Your task to perform on an android device: Nike Air Max 2020 shoes on Nike.com Image 0: 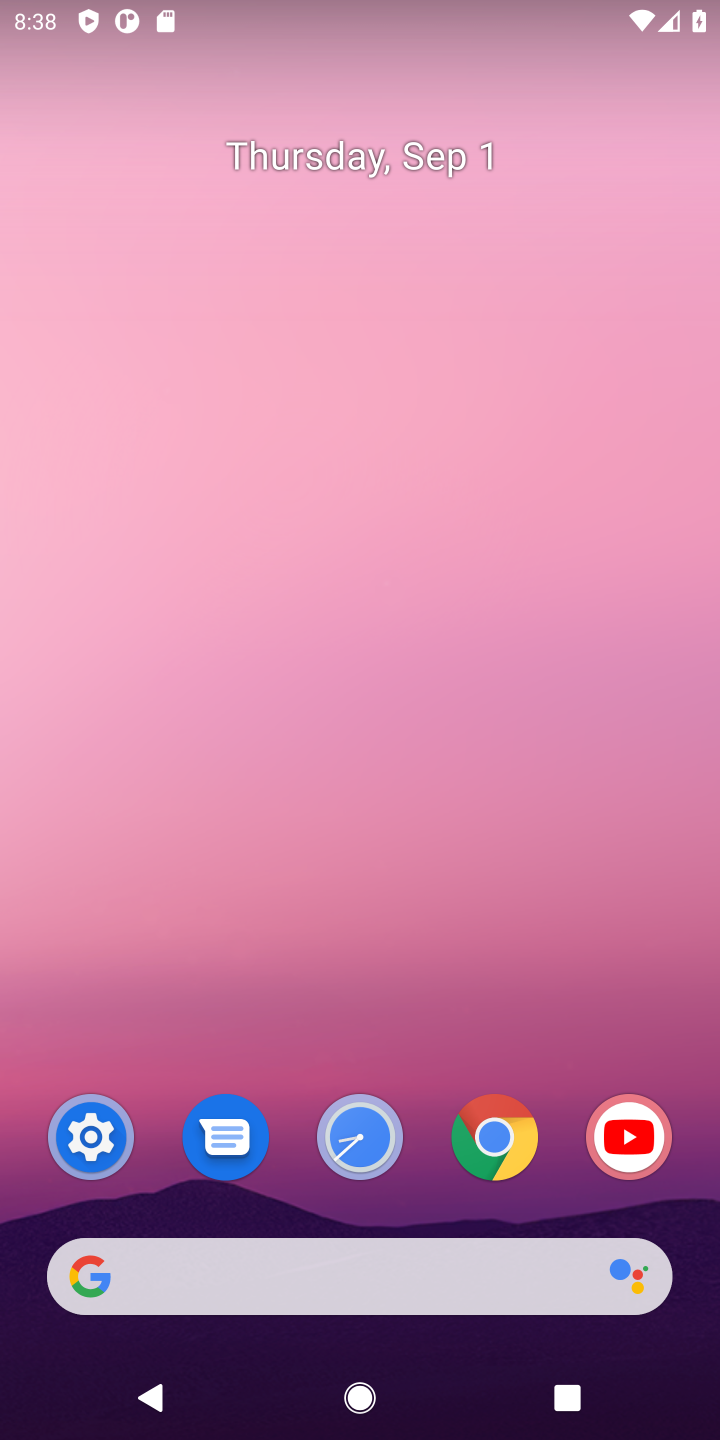
Step 0: drag from (395, 979) to (571, 8)
Your task to perform on an android device: Nike Air Max 2020 shoes on Nike.com Image 1: 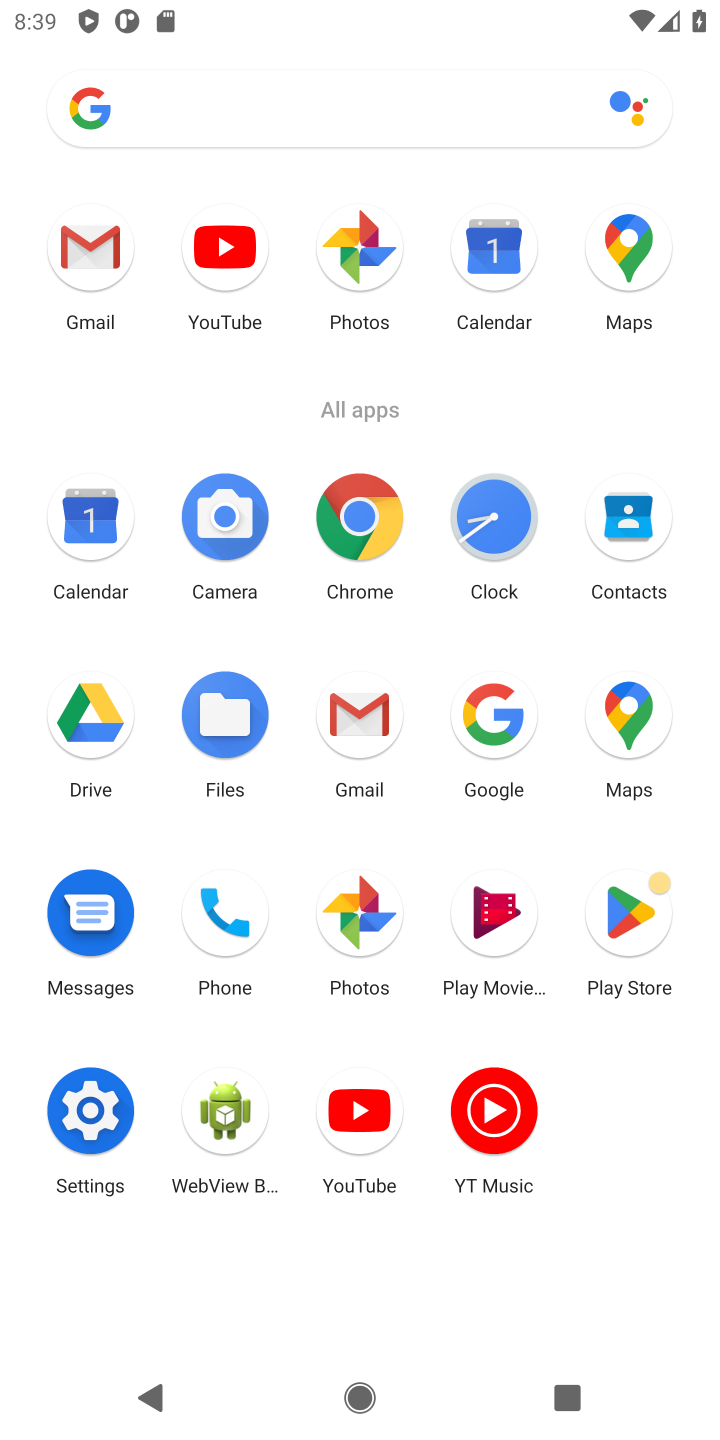
Step 1: click (354, 510)
Your task to perform on an android device: Nike Air Max 2020 shoes on Nike.com Image 2: 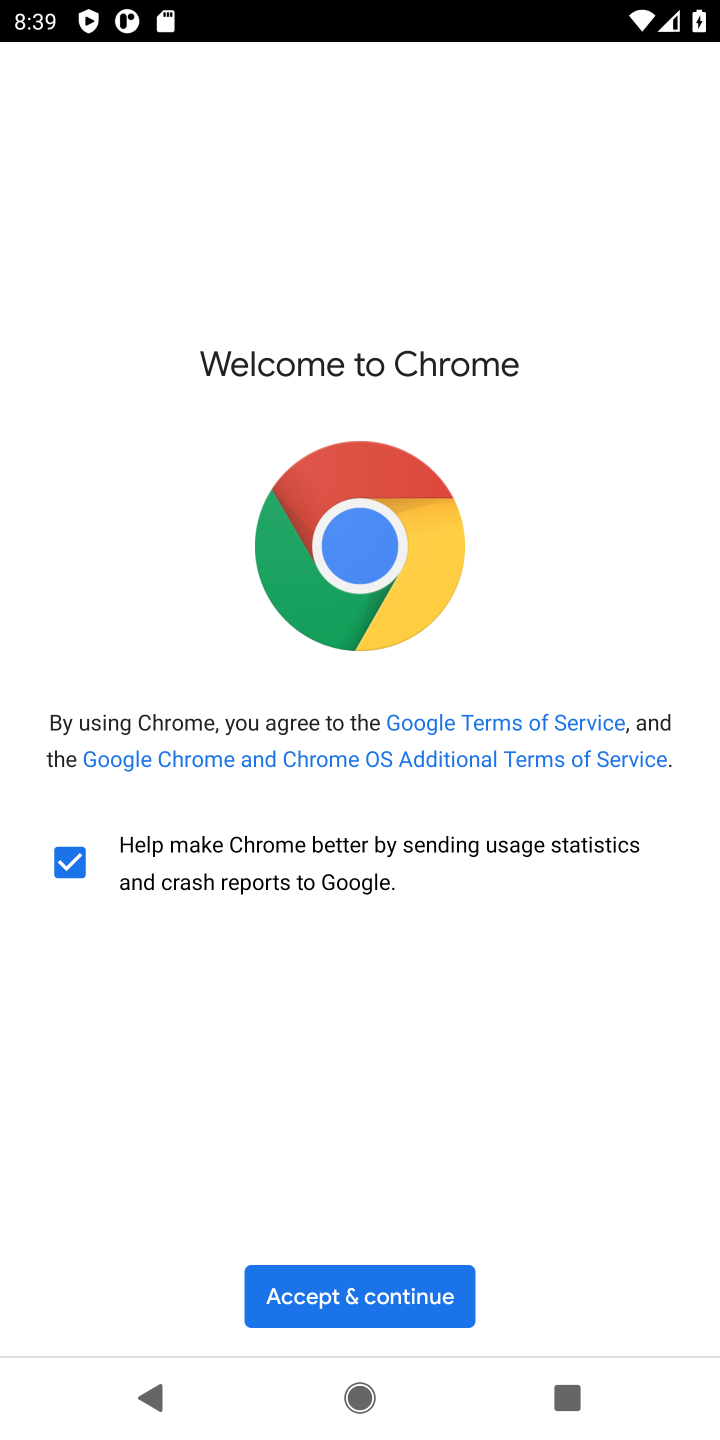
Step 2: click (343, 1289)
Your task to perform on an android device: Nike Air Max 2020 shoes on Nike.com Image 3: 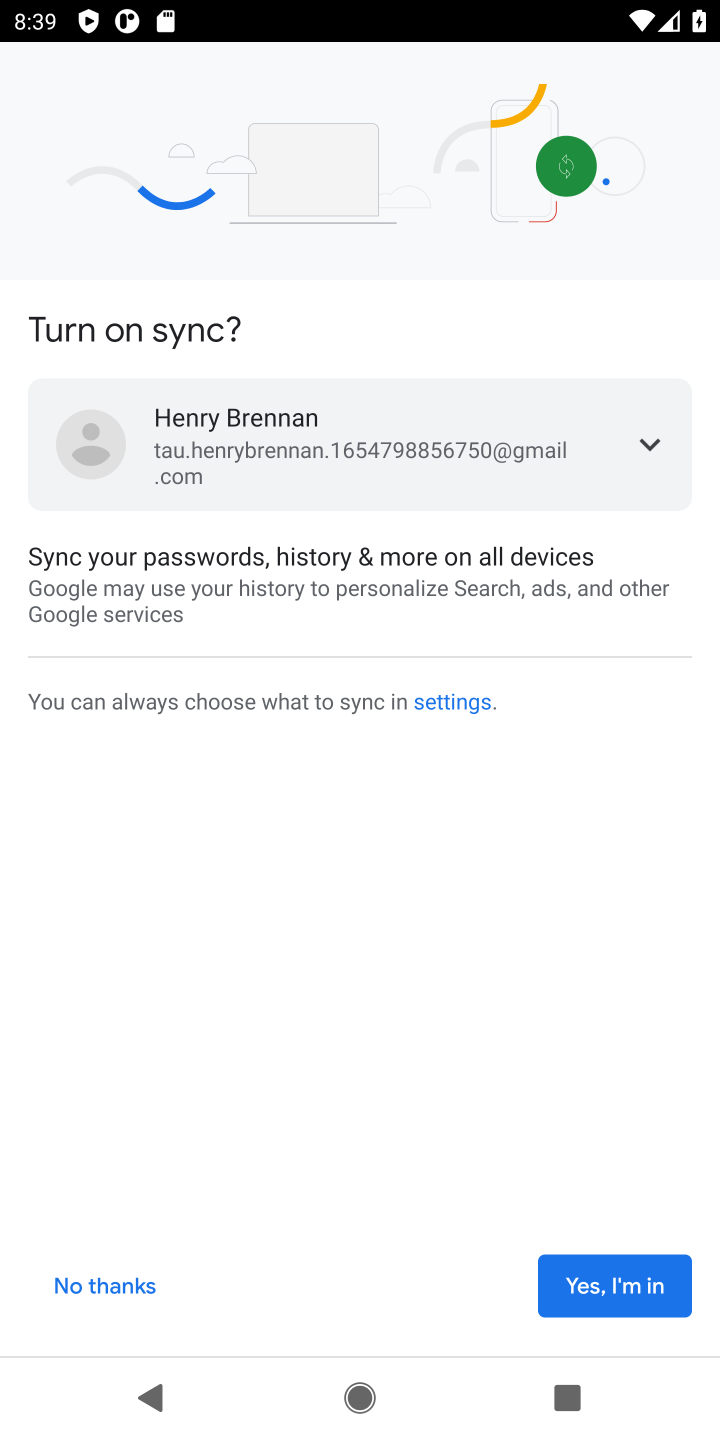
Step 3: click (618, 1279)
Your task to perform on an android device: Nike Air Max 2020 shoes on Nike.com Image 4: 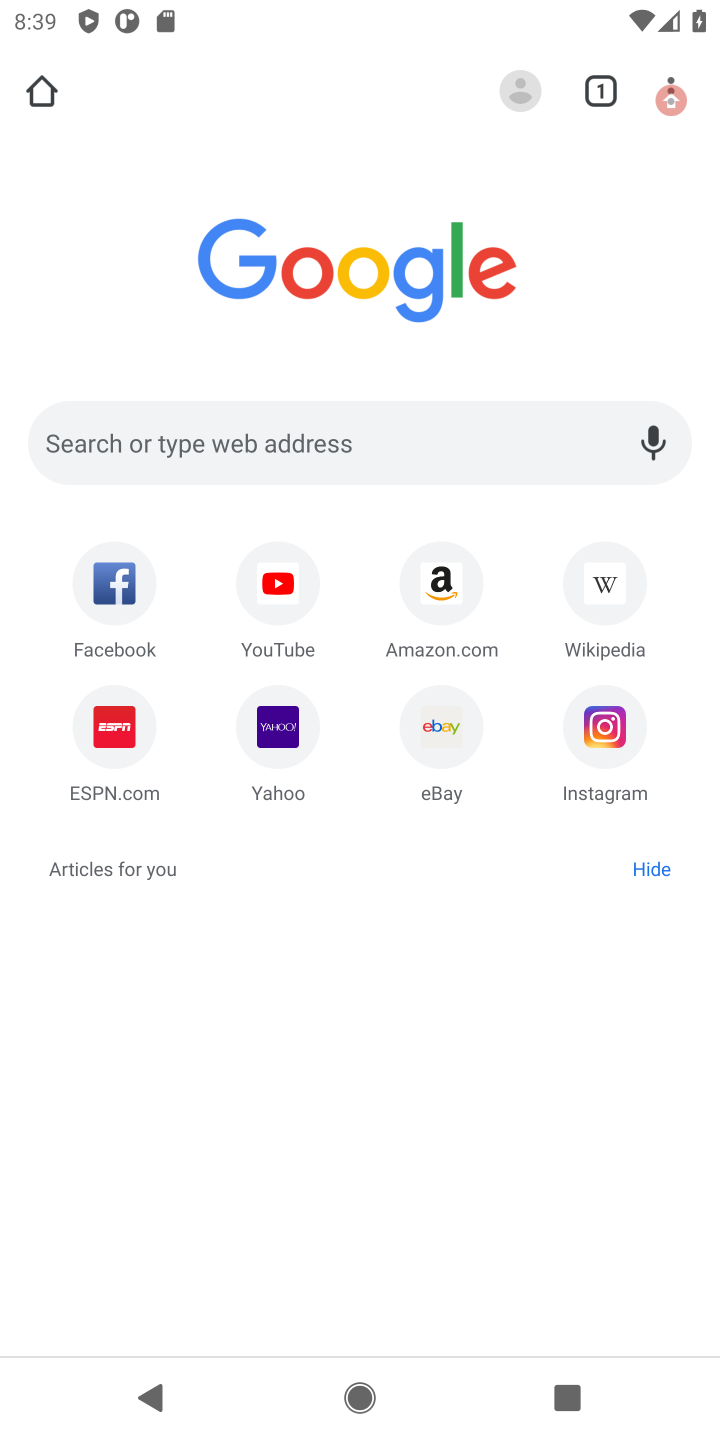
Step 4: click (311, 439)
Your task to perform on an android device: Nike Air Max 2020 shoes on Nike.com Image 5: 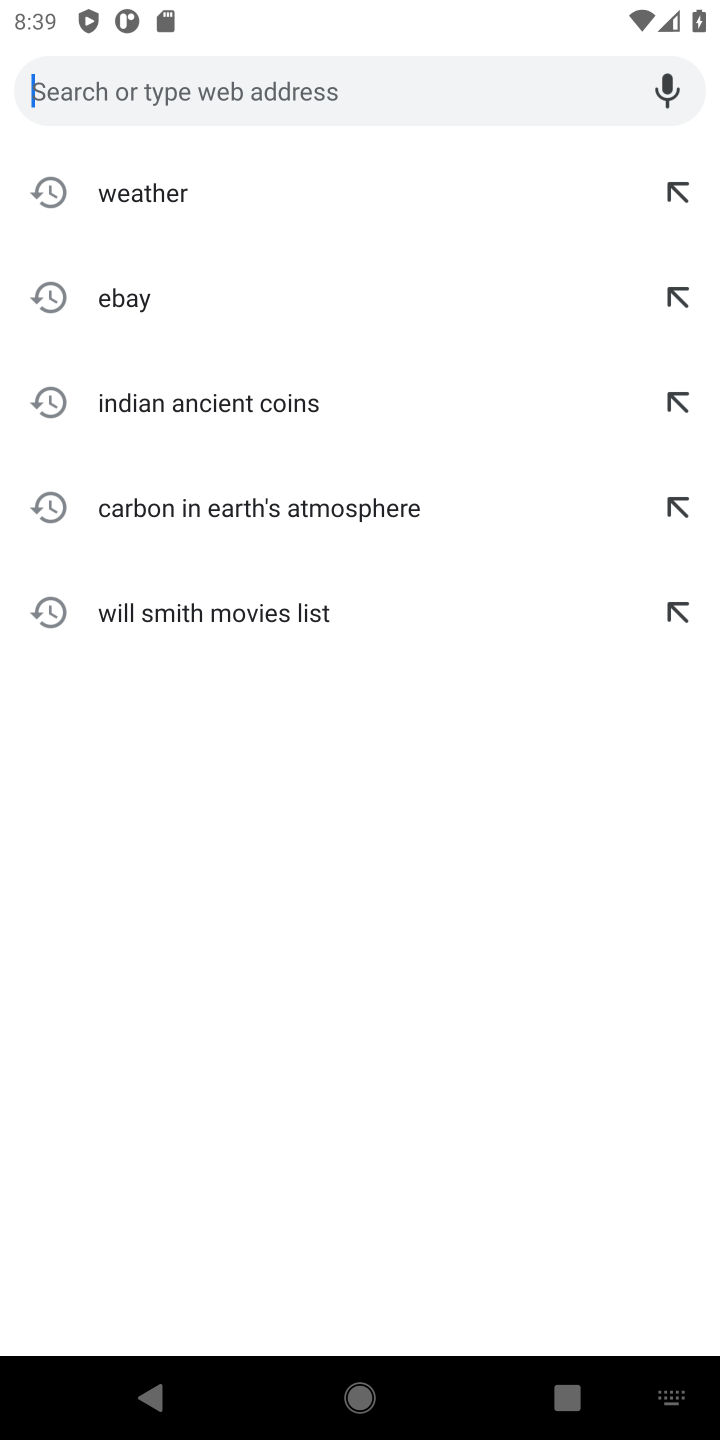
Step 5: type "Nike.com"
Your task to perform on an android device: Nike Air Max 2020 shoes on Nike.com Image 6: 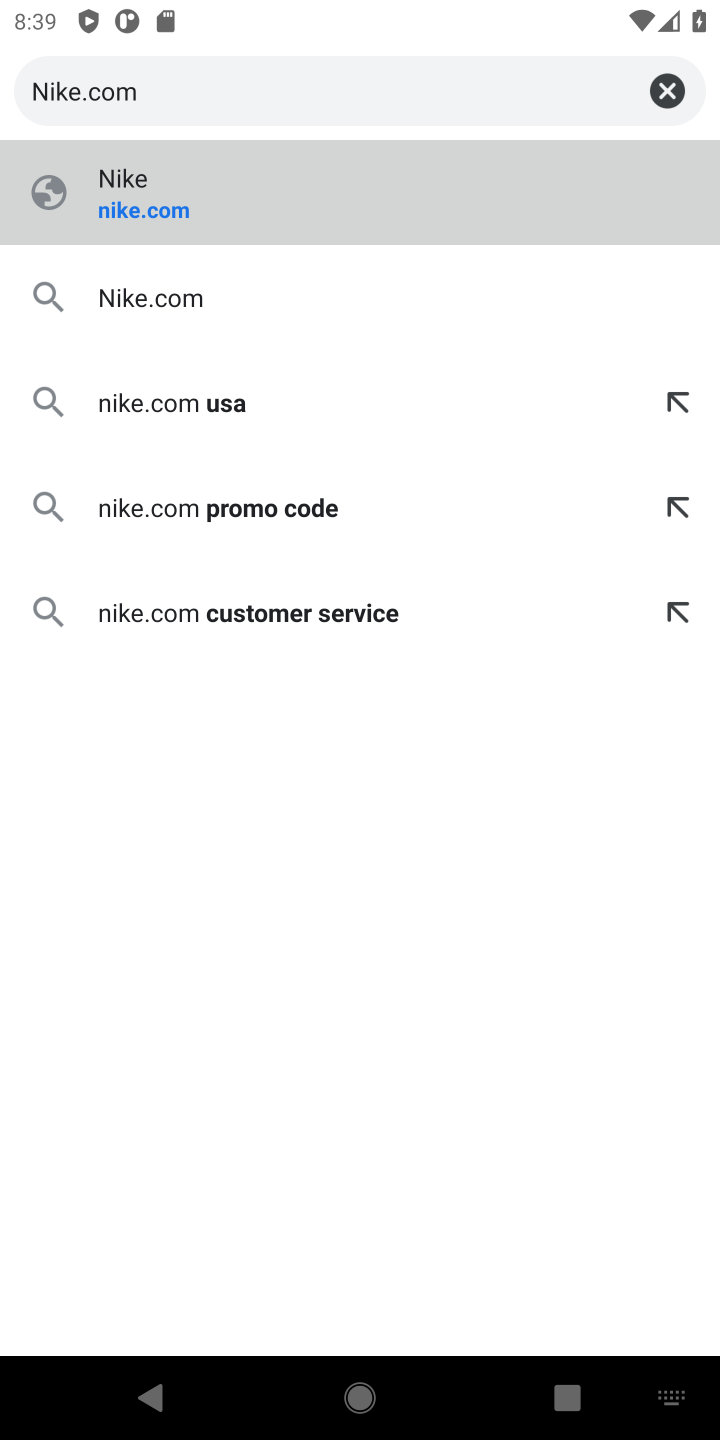
Step 6: click (178, 207)
Your task to perform on an android device: Nike Air Max 2020 shoes on Nike.com Image 7: 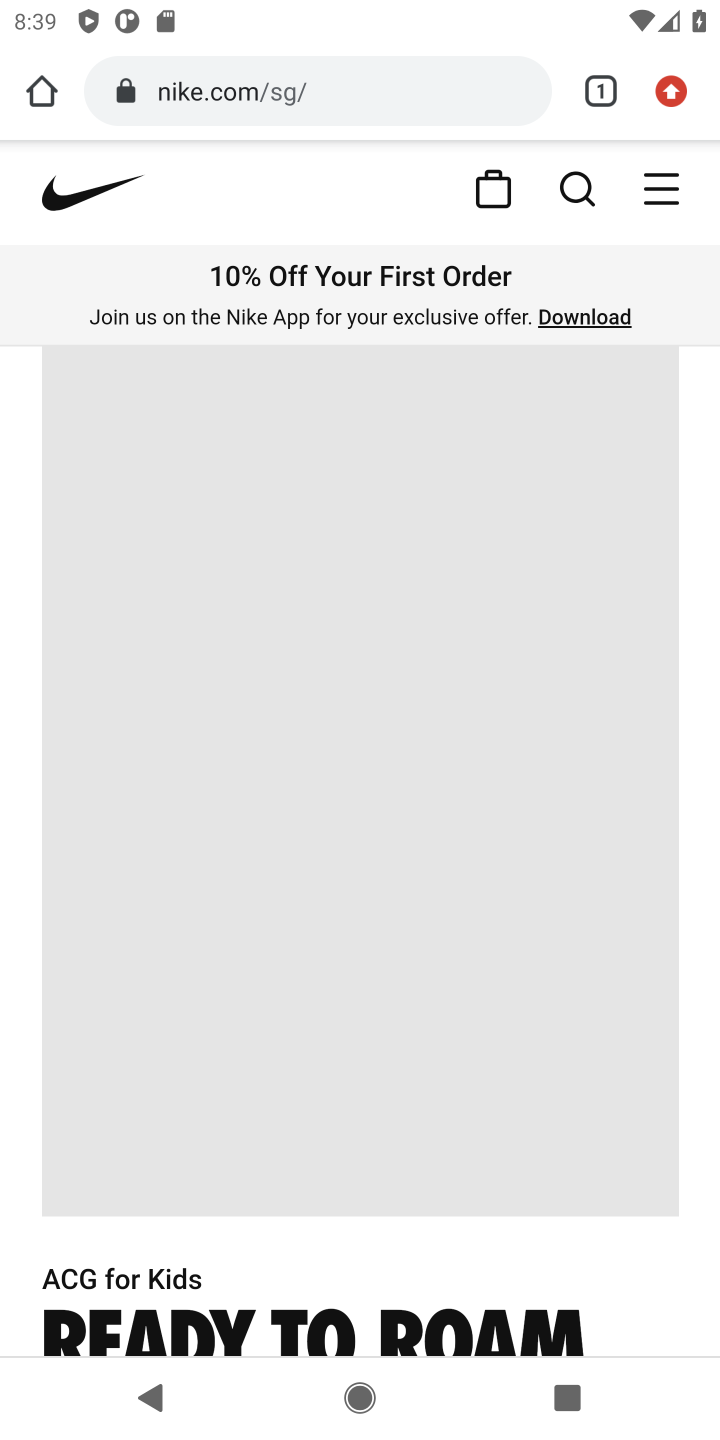
Step 7: drag from (399, 1187) to (385, 335)
Your task to perform on an android device: Nike Air Max 2020 shoes on Nike.com Image 8: 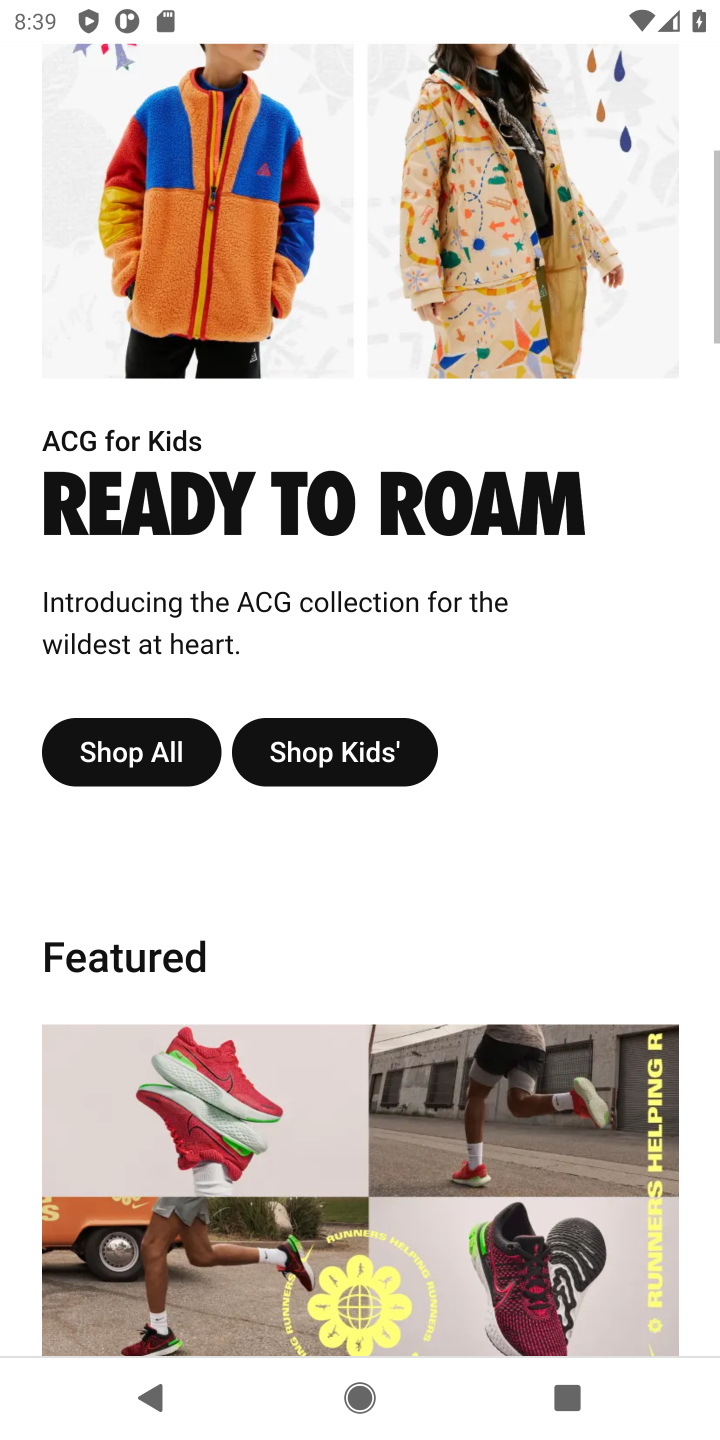
Step 8: drag from (417, 1178) to (350, 469)
Your task to perform on an android device: Nike Air Max 2020 shoes on Nike.com Image 9: 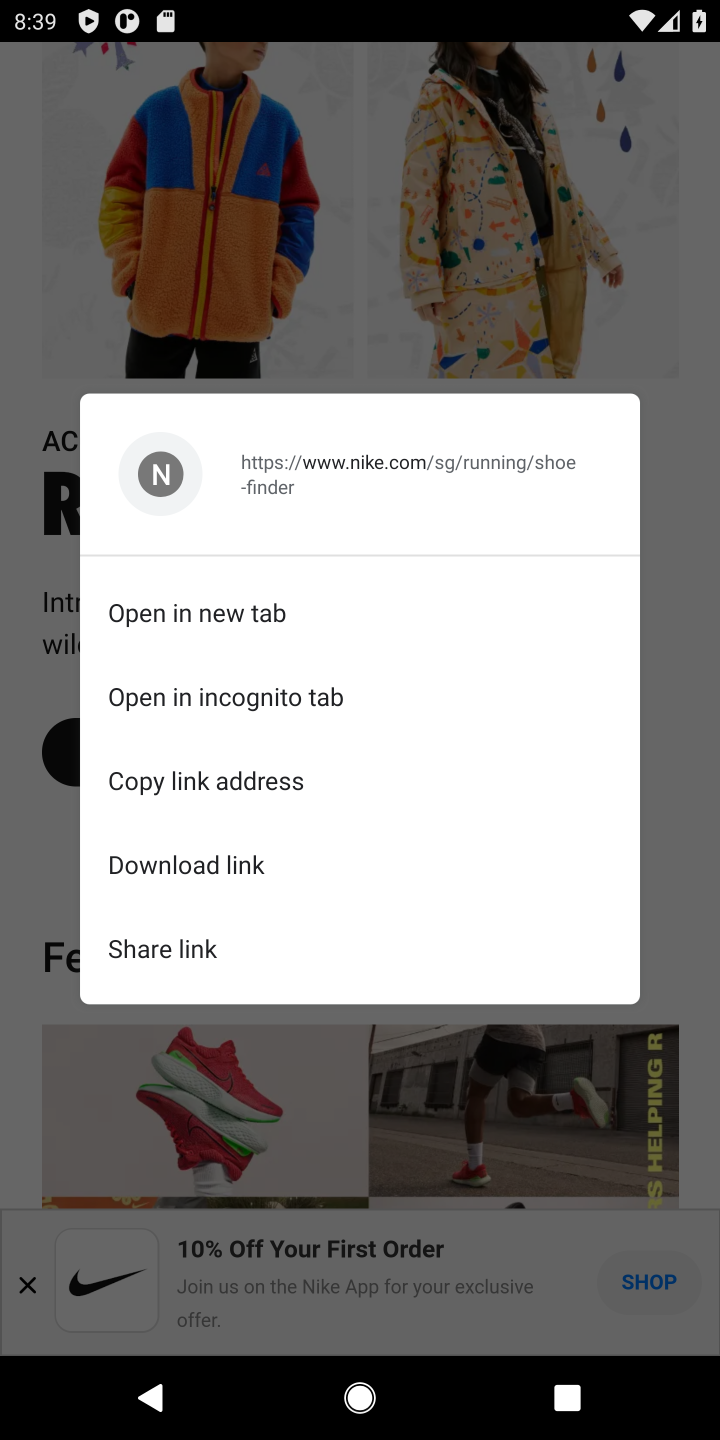
Step 9: click (34, 301)
Your task to perform on an android device: Nike Air Max 2020 shoes on Nike.com Image 10: 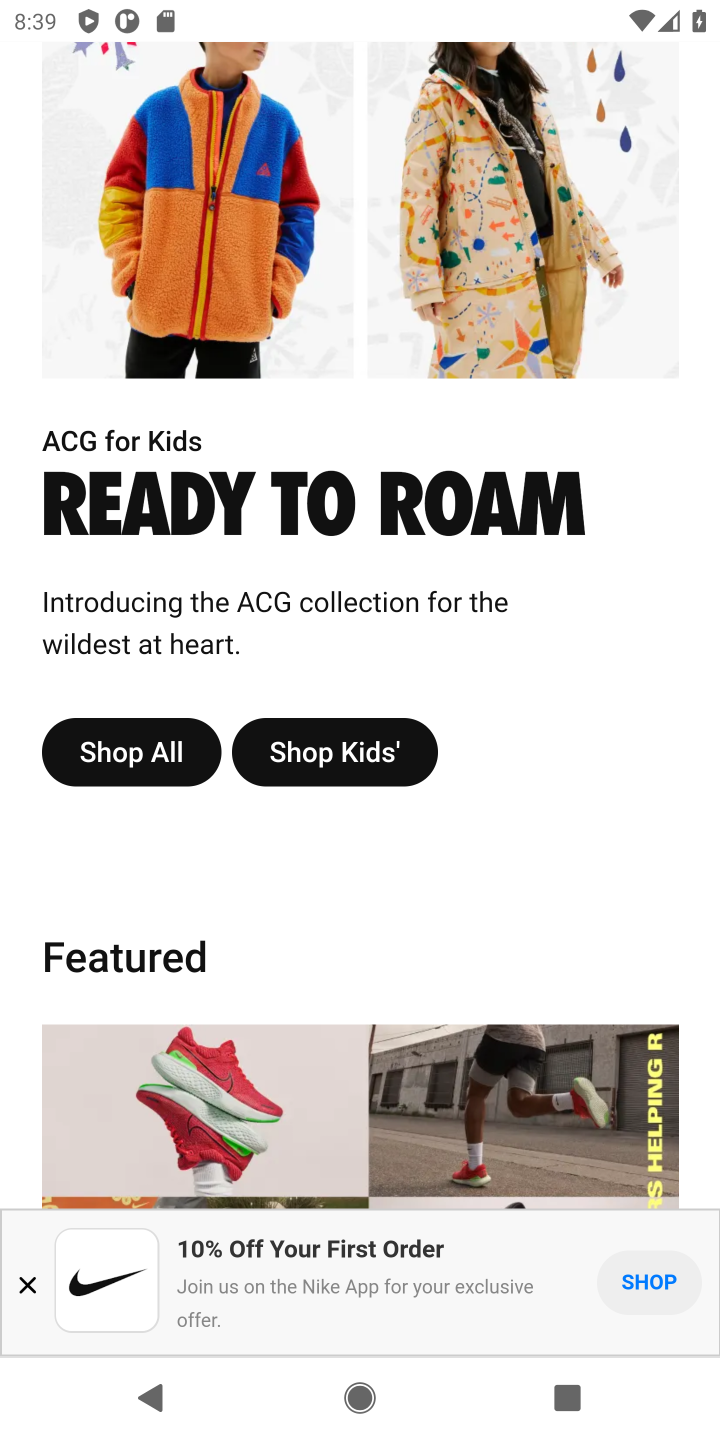
Step 10: drag from (378, 294) to (440, 1135)
Your task to perform on an android device: Nike Air Max 2020 shoes on Nike.com Image 11: 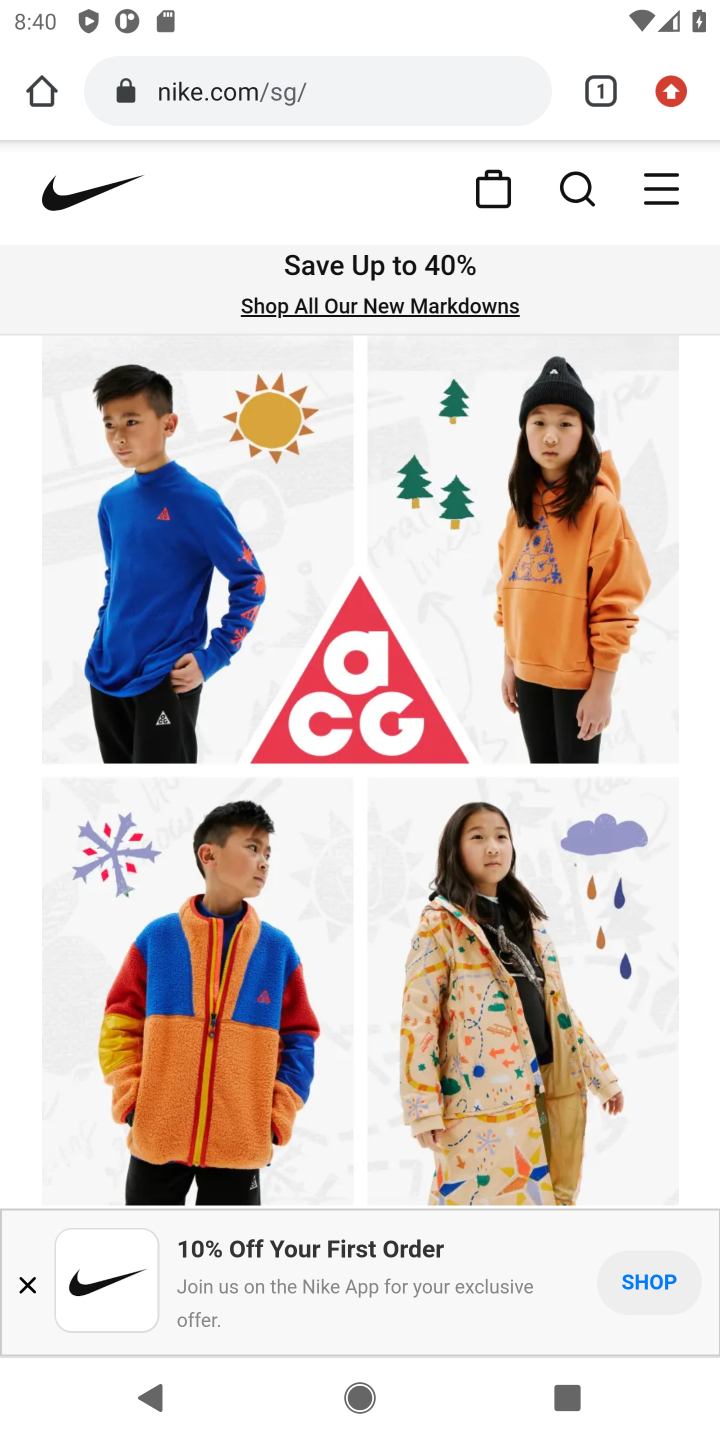
Step 11: click (575, 181)
Your task to perform on an android device: Nike Air Max 2020 shoes on Nike.com Image 12: 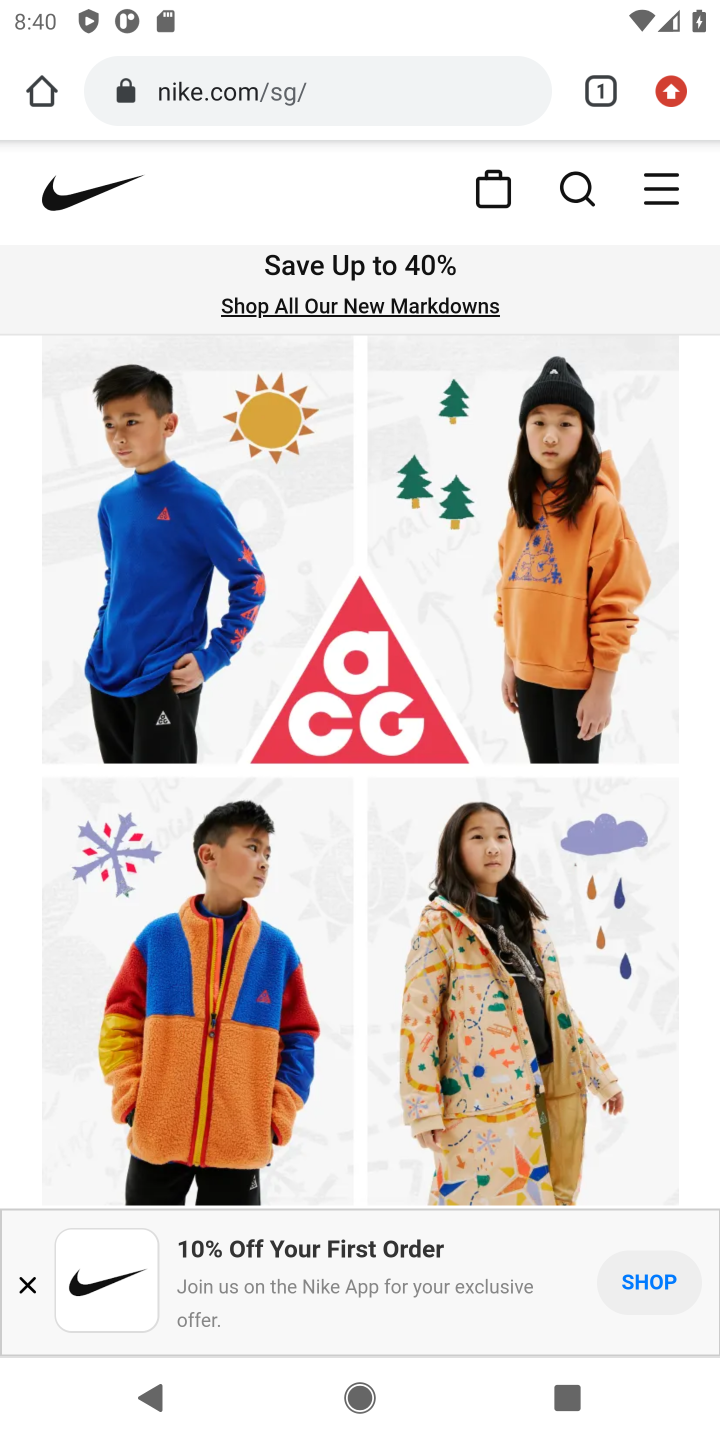
Step 12: click (568, 200)
Your task to perform on an android device: Nike Air Max 2020 shoes on Nike.com Image 13: 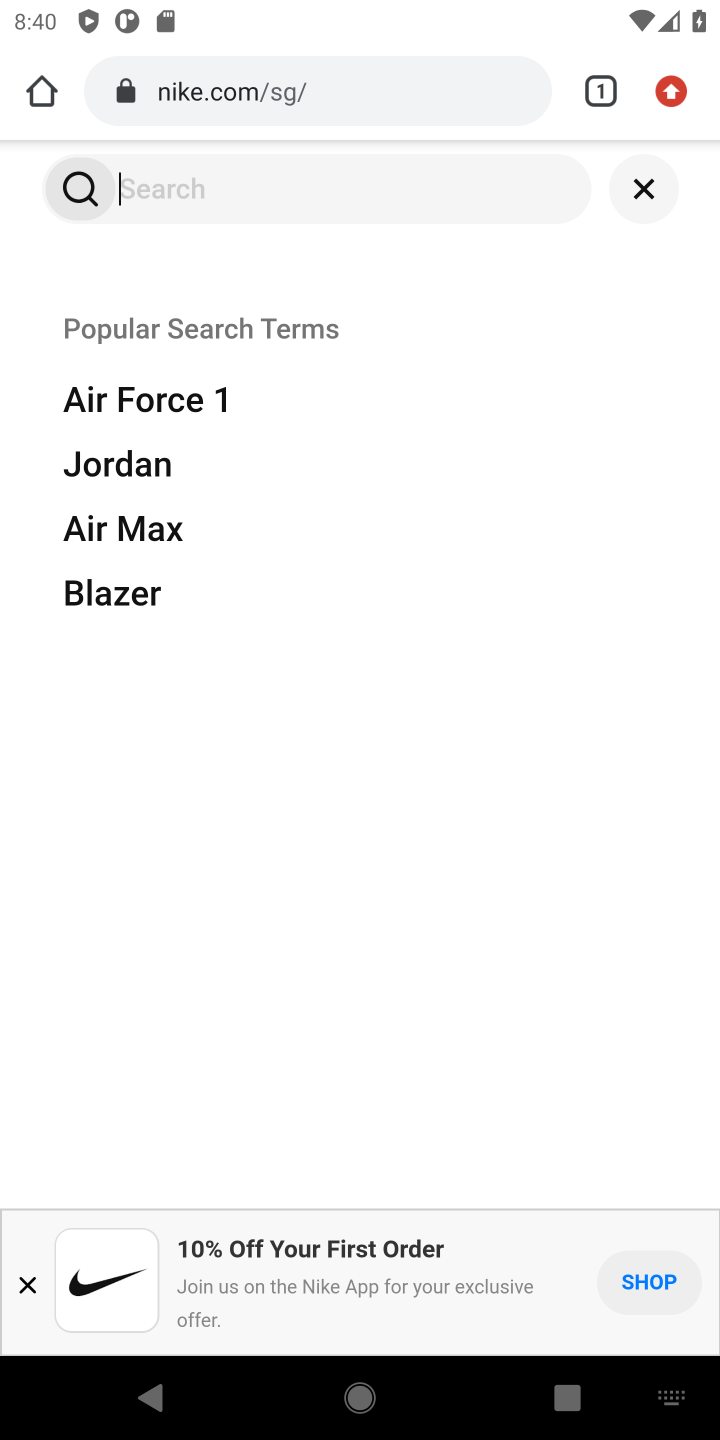
Step 13: type "Nike Air Max 2020 shoes"
Your task to perform on an android device: Nike Air Max 2020 shoes on Nike.com Image 14: 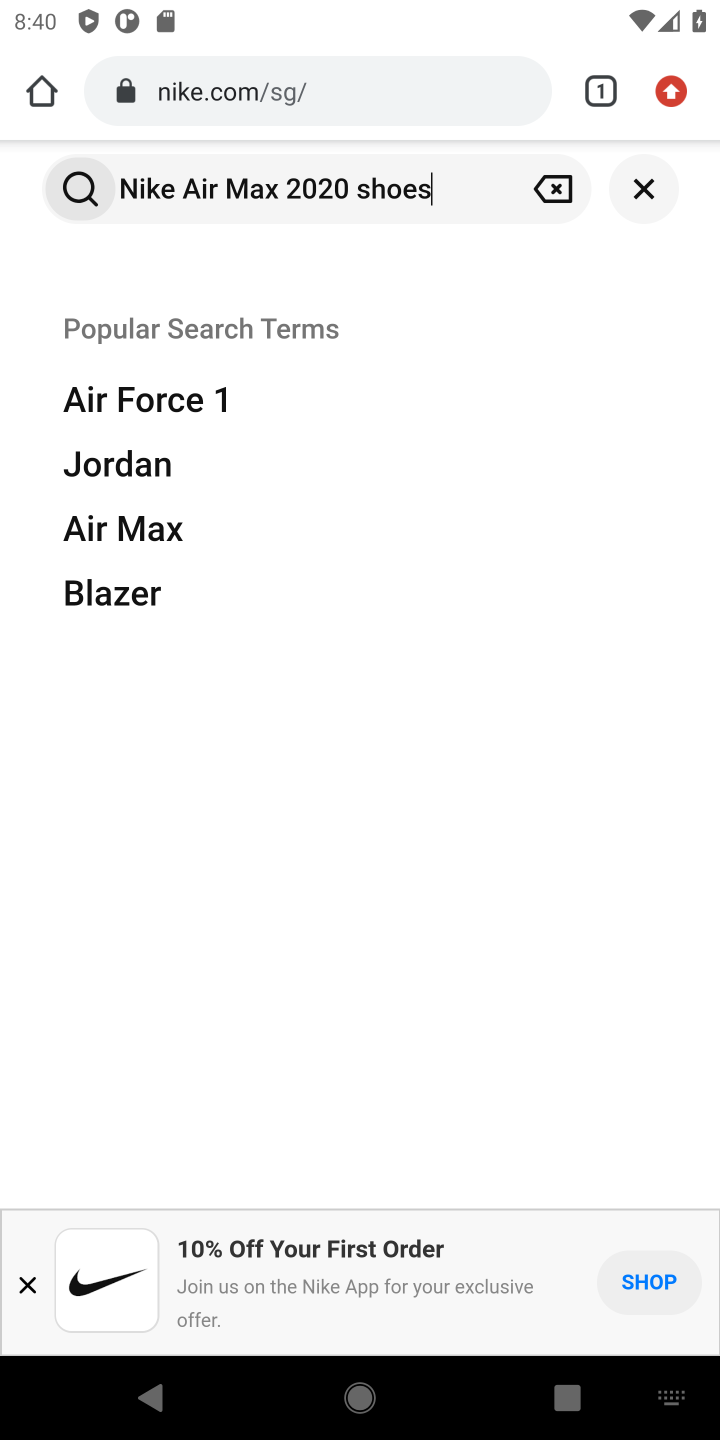
Step 14: click (63, 181)
Your task to perform on an android device: Nike Air Max 2020 shoes on Nike.com Image 15: 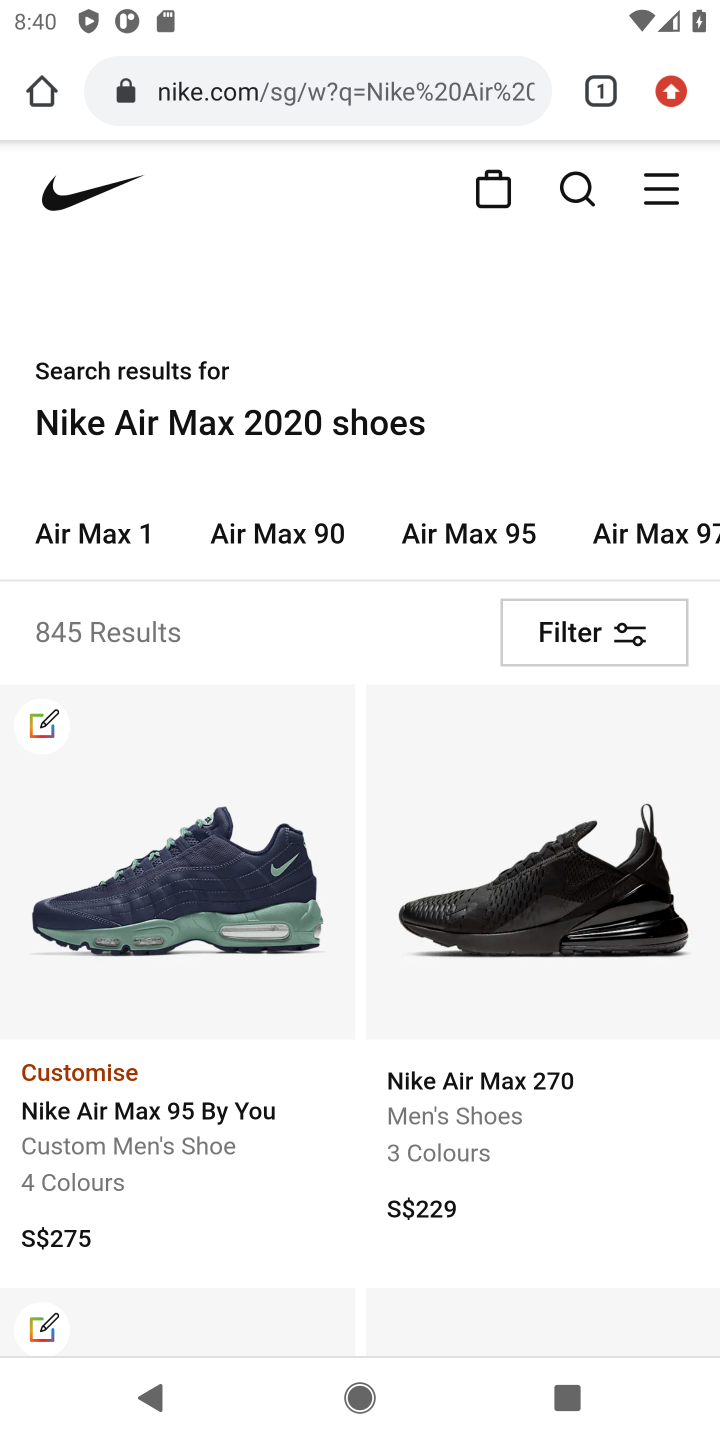
Step 15: drag from (378, 1159) to (287, 469)
Your task to perform on an android device: Nike Air Max 2020 shoes on Nike.com Image 16: 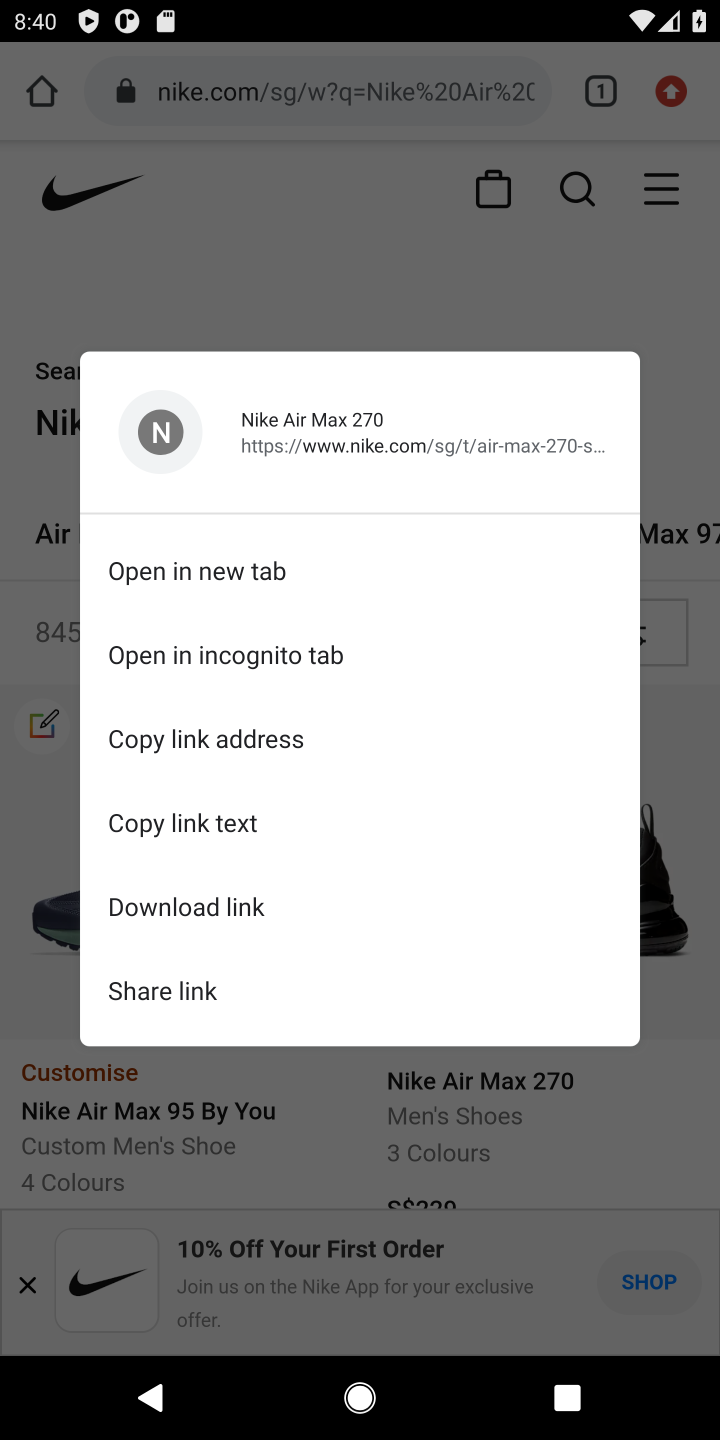
Step 16: click (155, 276)
Your task to perform on an android device: Nike Air Max 2020 shoes on Nike.com Image 17: 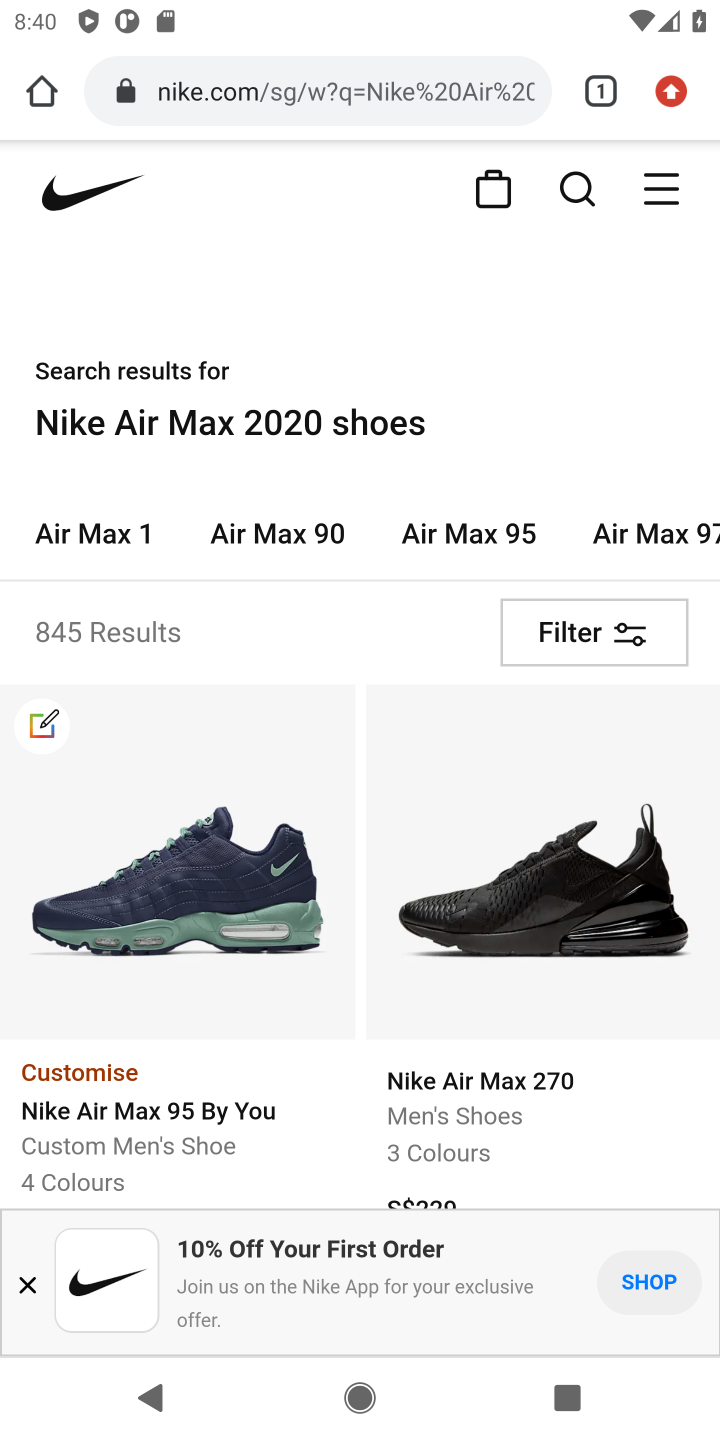
Step 17: drag from (346, 1145) to (334, 516)
Your task to perform on an android device: Nike Air Max 2020 shoes on Nike.com Image 18: 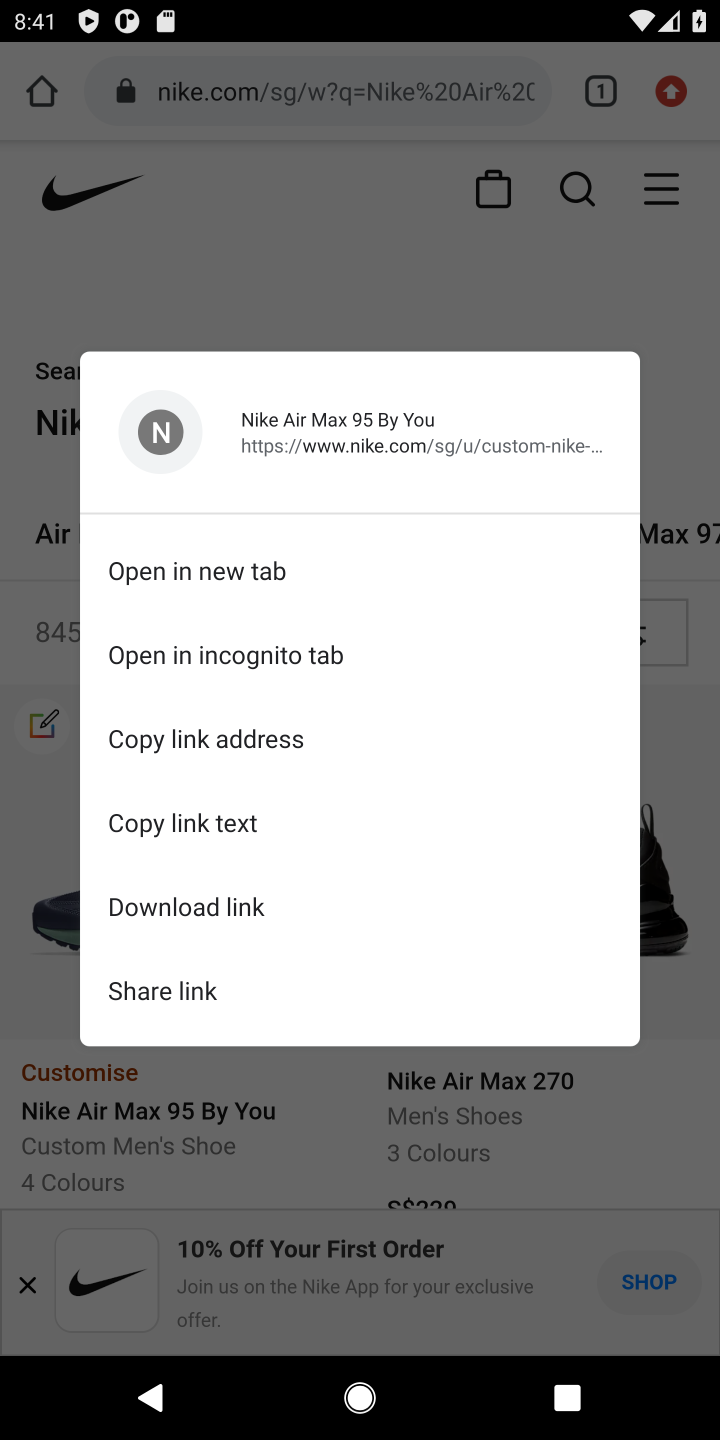
Step 18: click (277, 248)
Your task to perform on an android device: Nike Air Max 2020 shoes on Nike.com Image 19: 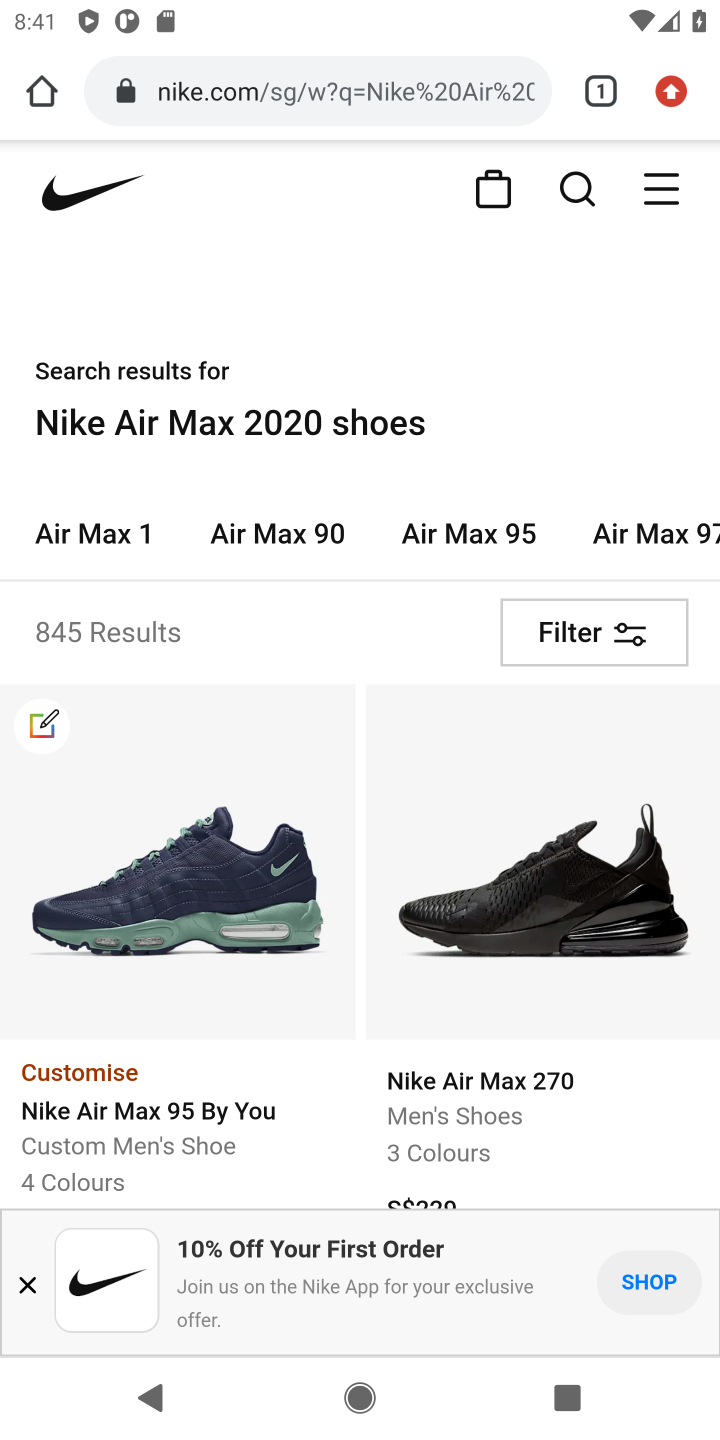
Step 19: drag from (368, 670) to (352, 107)
Your task to perform on an android device: Nike Air Max 2020 shoes on Nike.com Image 20: 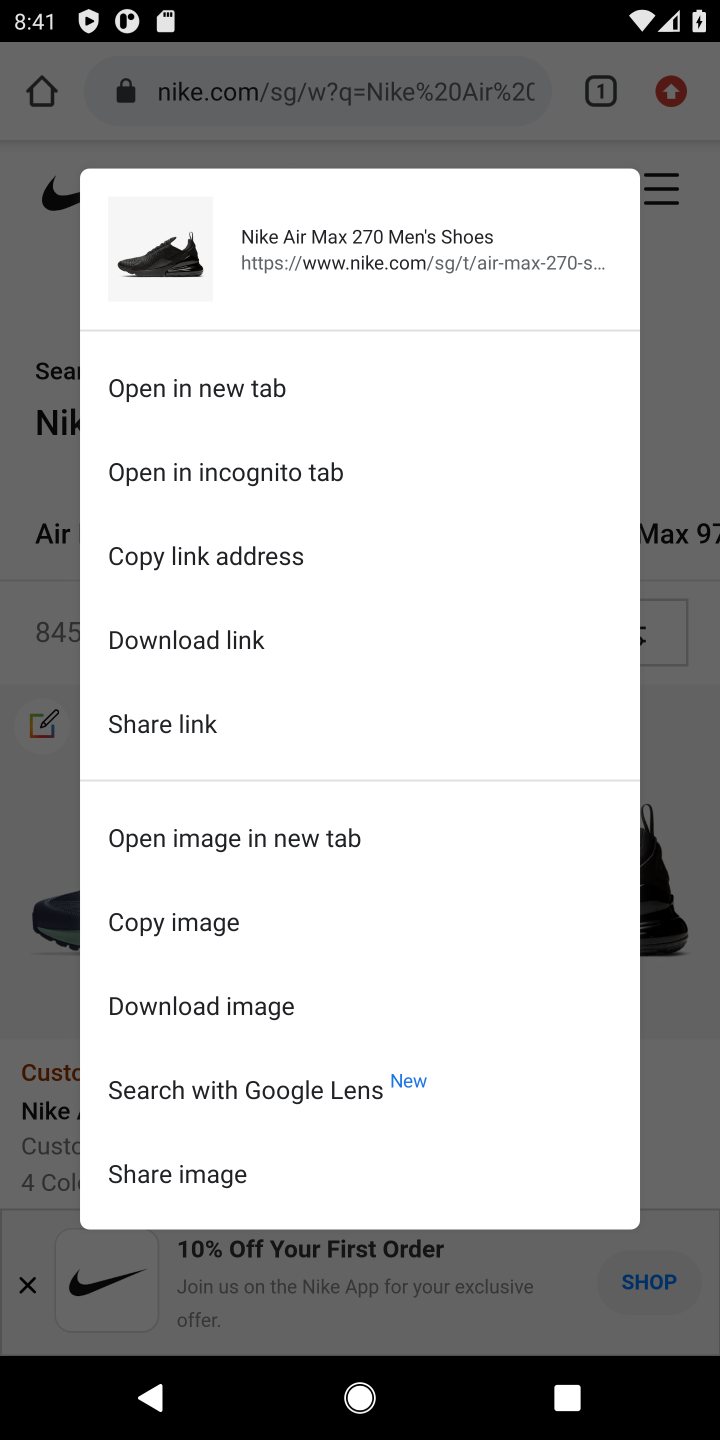
Step 20: click (13, 267)
Your task to perform on an android device: Nike Air Max 2020 shoes on Nike.com Image 21: 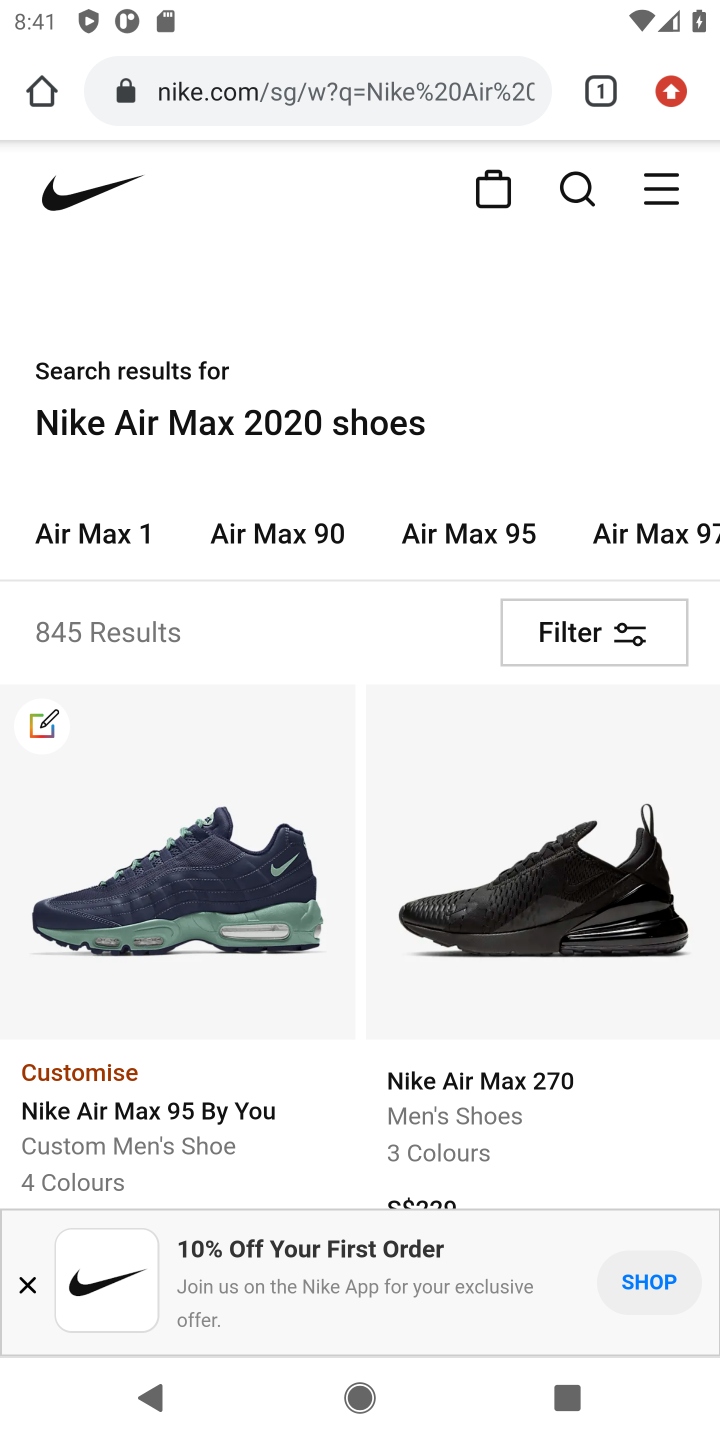
Step 21: drag from (350, 1154) to (315, 263)
Your task to perform on an android device: Nike Air Max 2020 shoes on Nike.com Image 22: 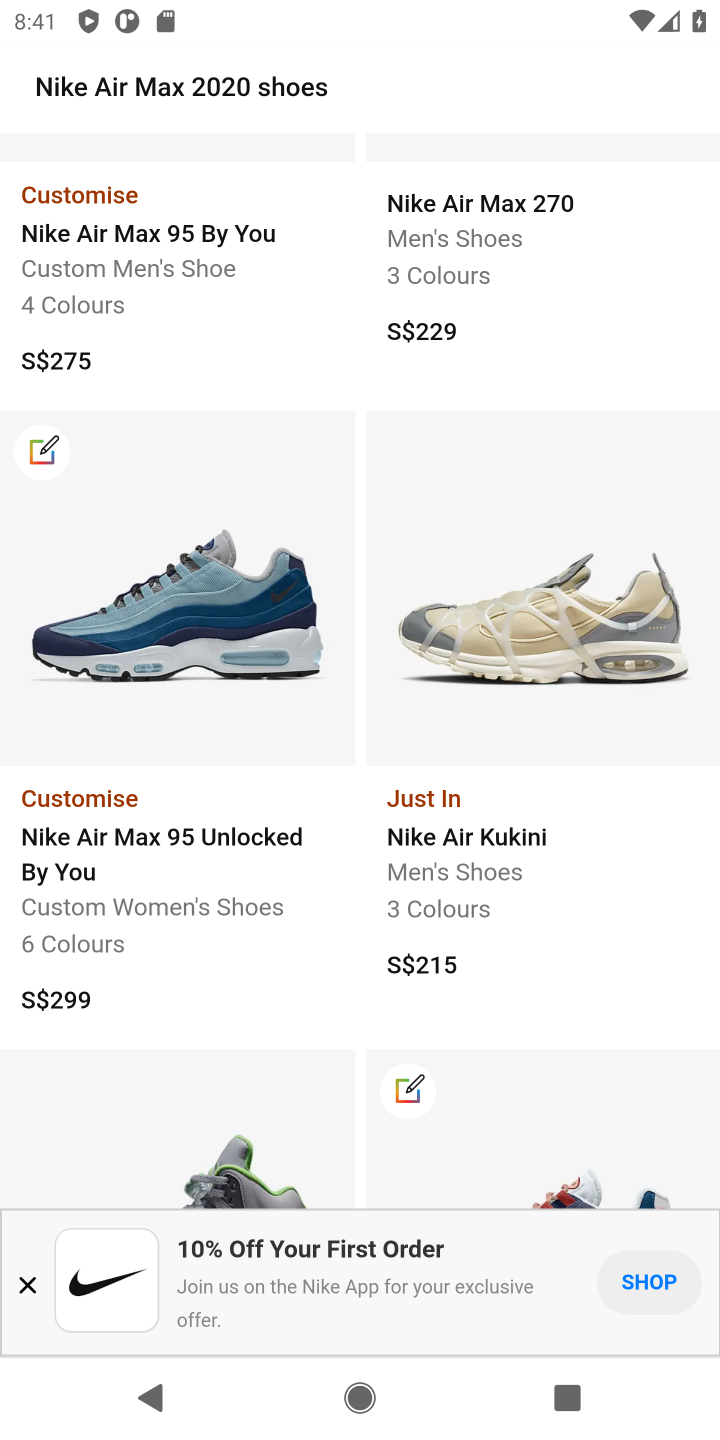
Step 22: drag from (335, 582) to (326, 175)
Your task to perform on an android device: Nike Air Max 2020 shoes on Nike.com Image 23: 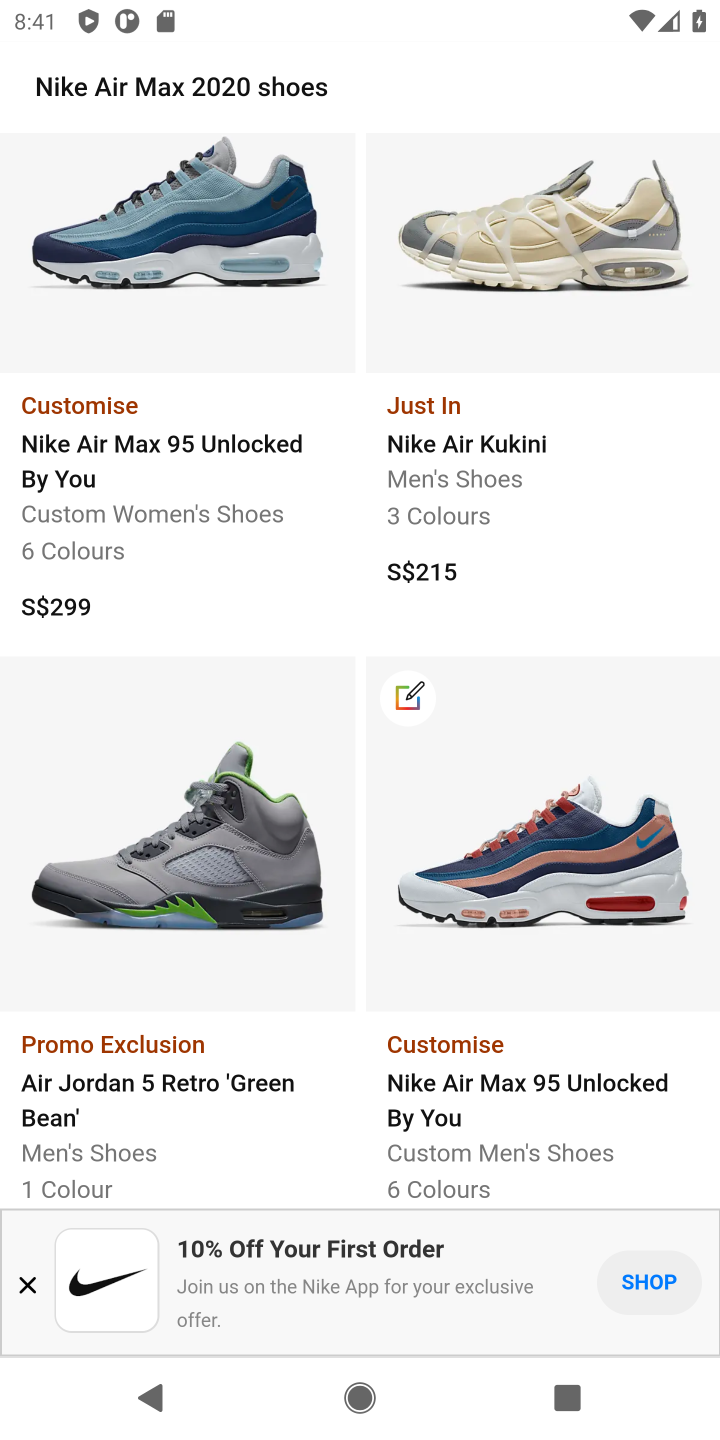
Step 23: drag from (369, 1175) to (379, 184)
Your task to perform on an android device: Nike Air Max 2020 shoes on Nike.com Image 24: 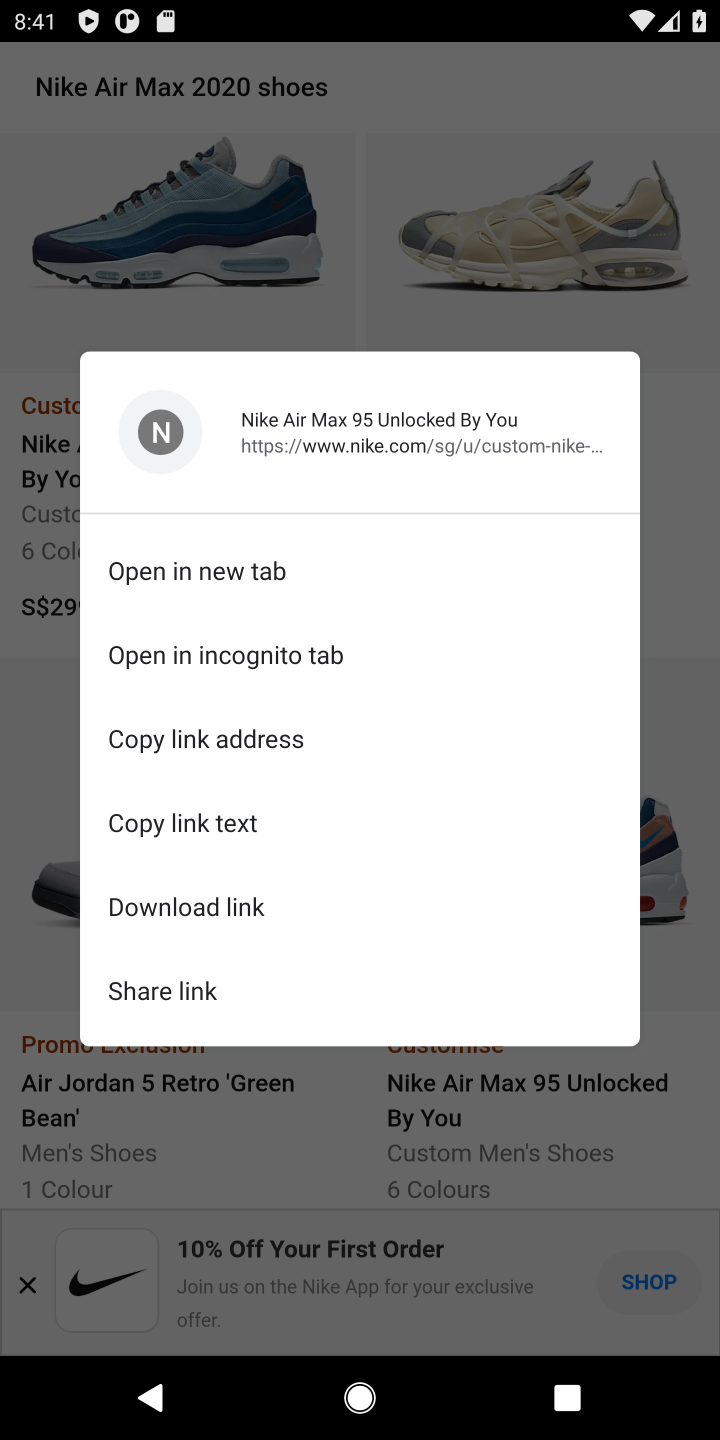
Step 24: click (354, 1131)
Your task to perform on an android device: Nike Air Max 2020 shoes on Nike.com Image 25: 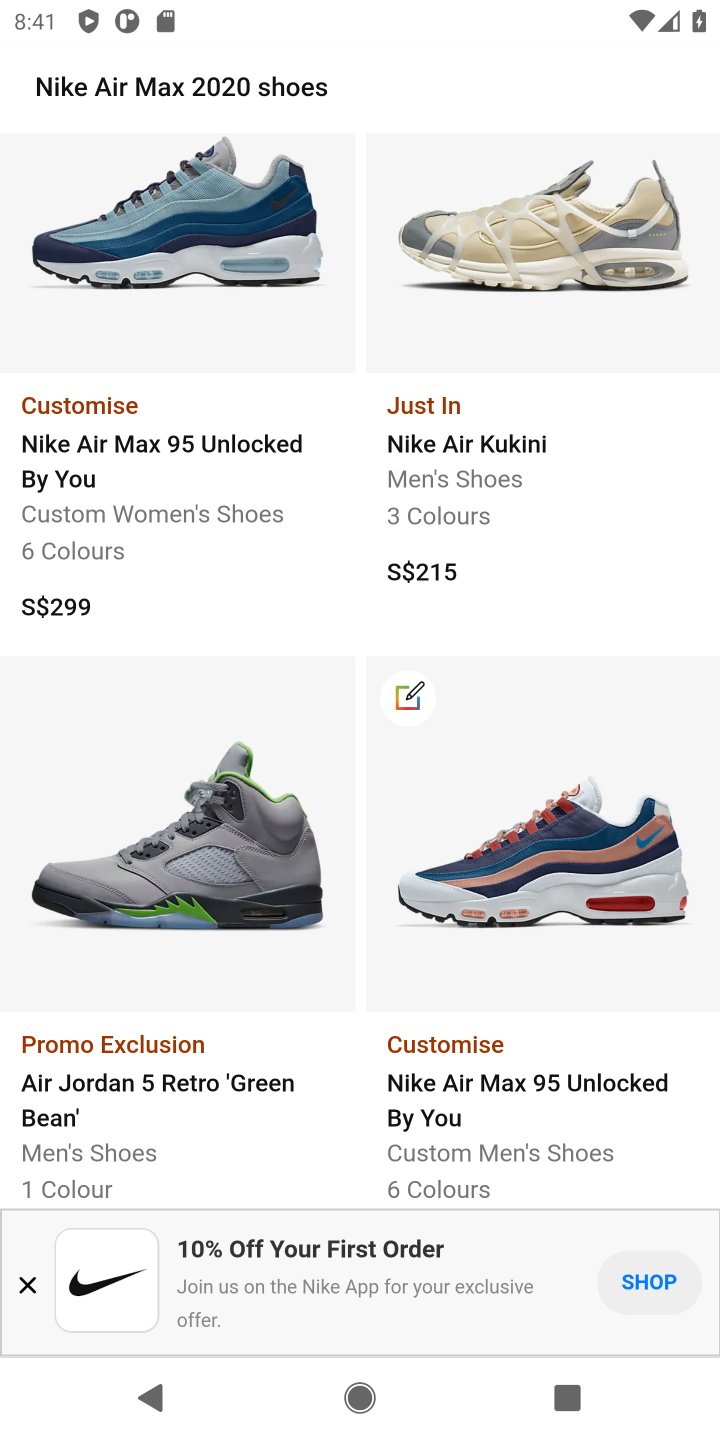
Step 25: task complete